Your task to perform on an android device: Open Android settings Image 0: 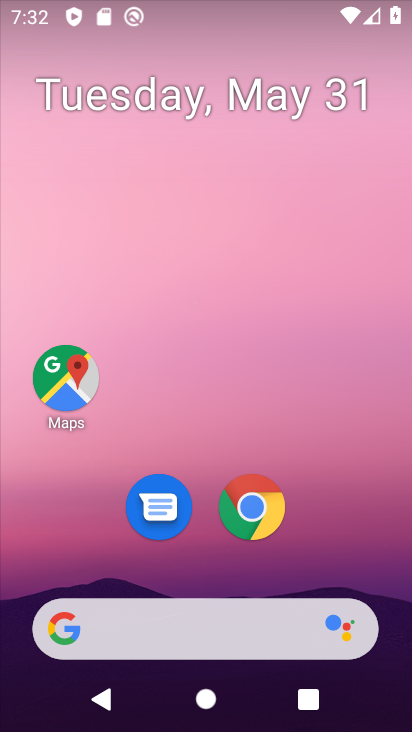
Step 0: drag from (349, 558) to (337, 6)
Your task to perform on an android device: Open Android settings Image 1: 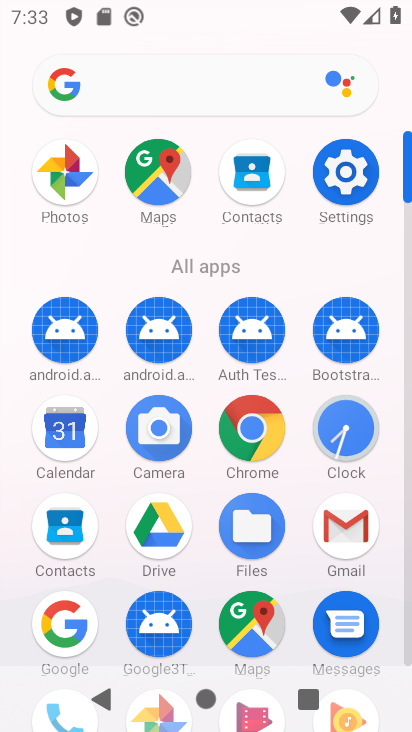
Step 1: click (342, 177)
Your task to perform on an android device: Open Android settings Image 2: 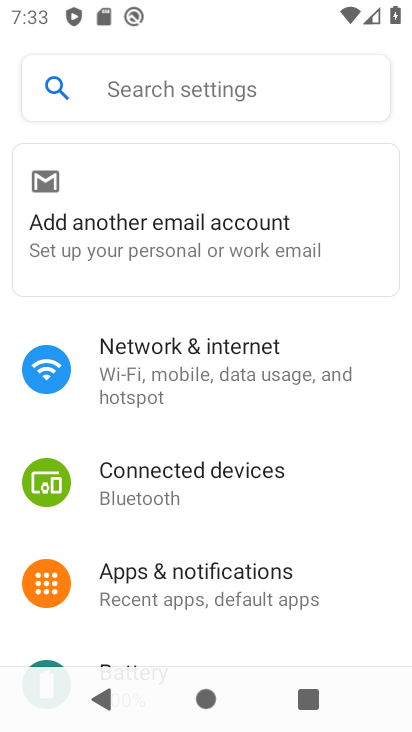
Step 2: task complete